Your task to perform on an android device: Search for vegetarian restaurants on Maps Image 0: 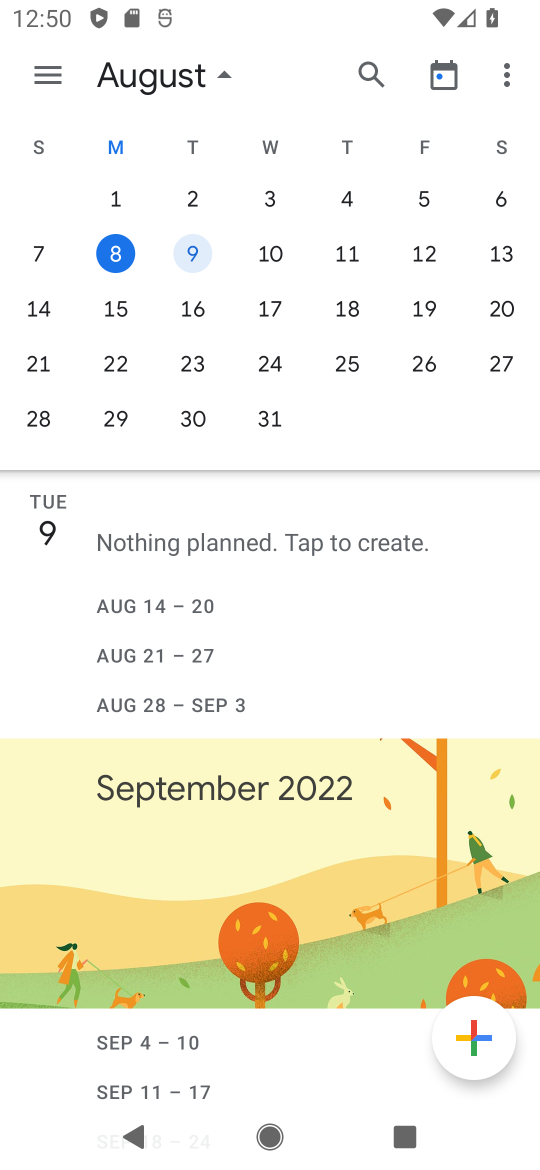
Step 0: press back button
Your task to perform on an android device: Search for vegetarian restaurants on Maps Image 1: 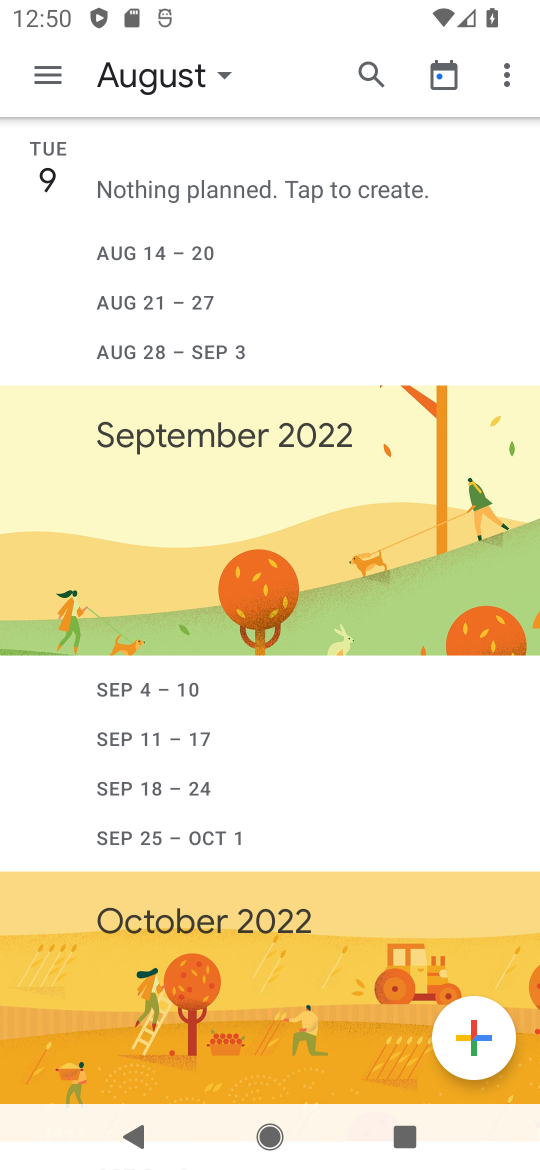
Step 1: press back button
Your task to perform on an android device: Search for vegetarian restaurants on Maps Image 2: 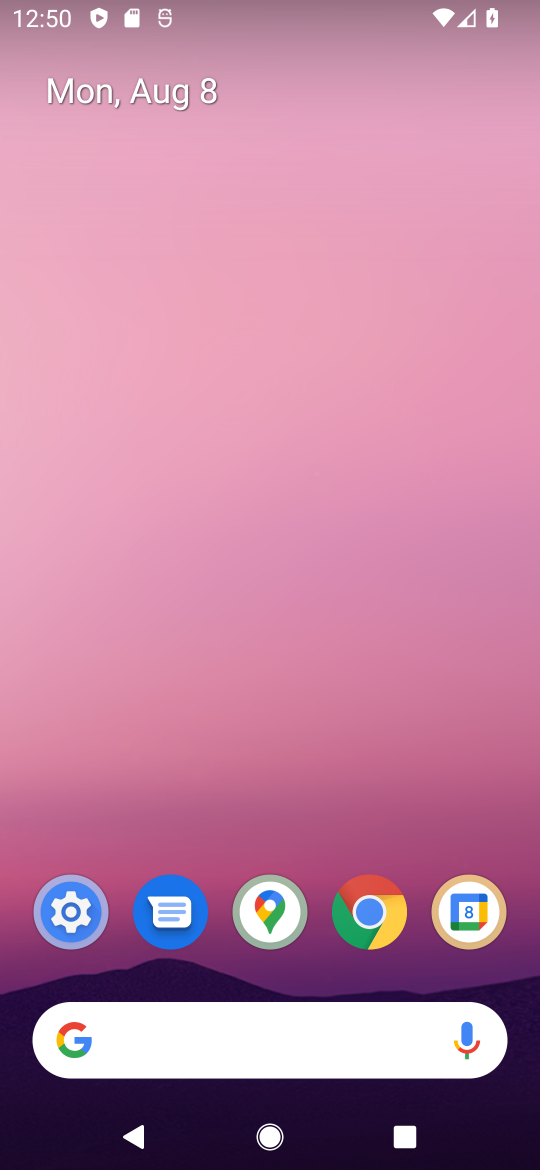
Step 2: click (272, 911)
Your task to perform on an android device: Search for vegetarian restaurants on Maps Image 3: 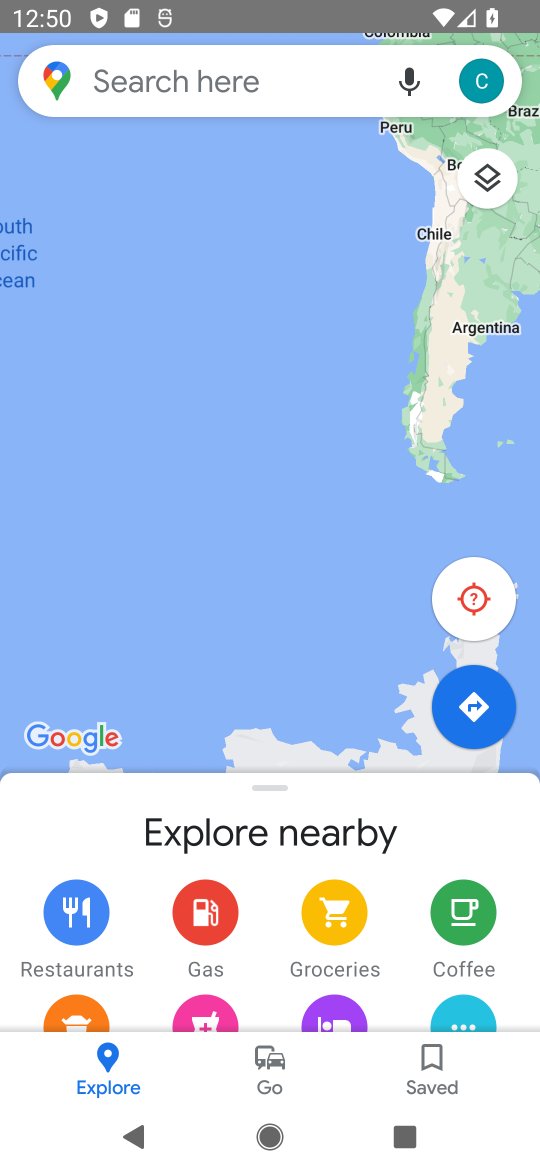
Step 3: click (167, 77)
Your task to perform on an android device: Search for vegetarian restaurants on Maps Image 4: 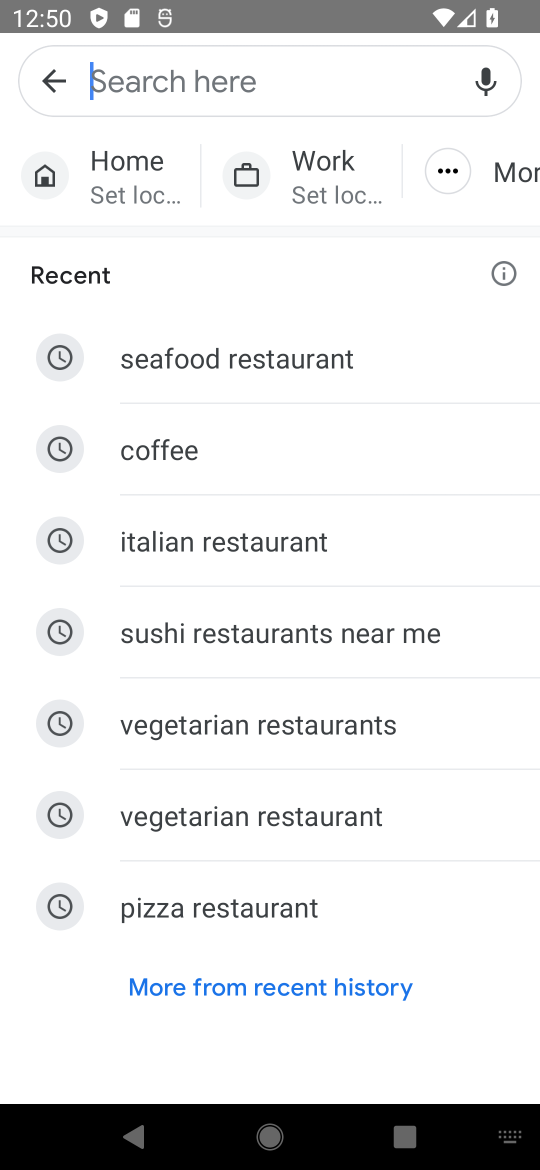
Step 4: click (159, 716)
Your task to perform on an android device: Search for vegetarian restaurants on Maps Image 5: 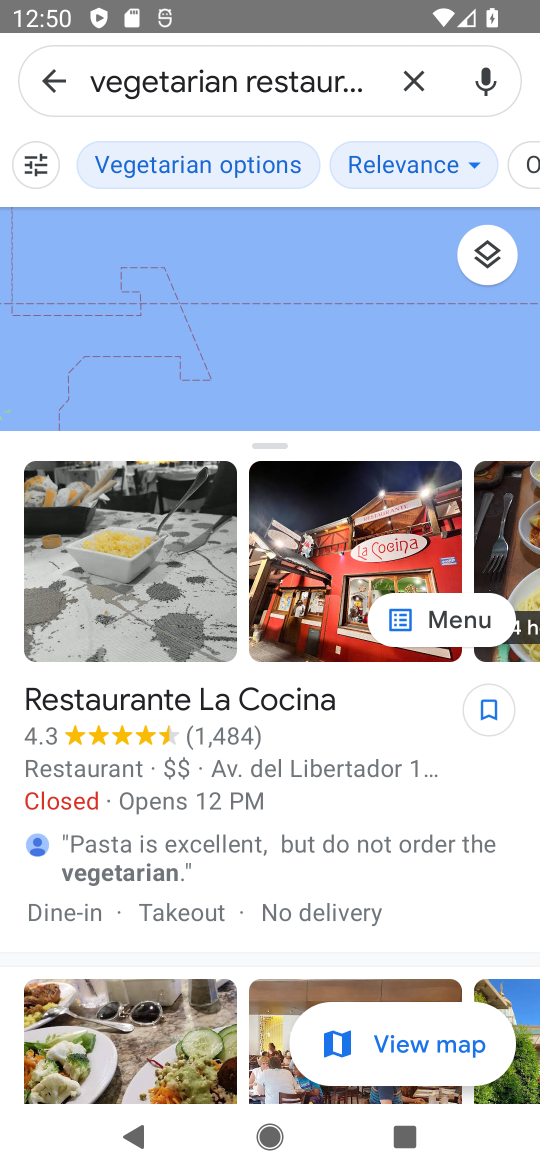
Step 5: task complete